Your task to perform on an android device: open app "AliExpress" (install if not already installed) Image 0: 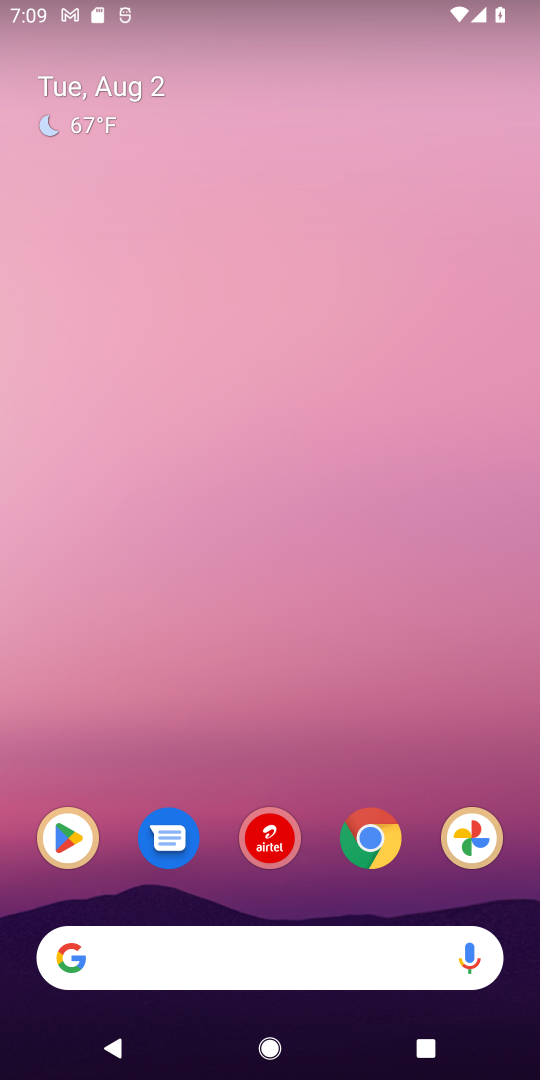
Step 0: click (58, 839)
Your task to perform on an android device: open app "AliExpress" (install if not already installed) Image 1: 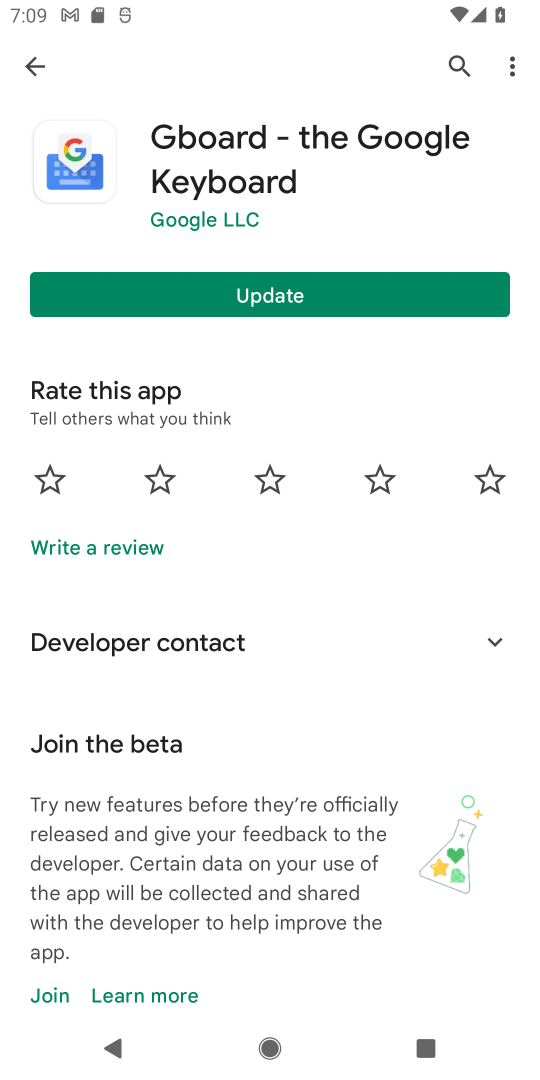
Step 1: press home button
Your task to perform on an android device: open app "AliExpress" (install if not already installed) Image 2: 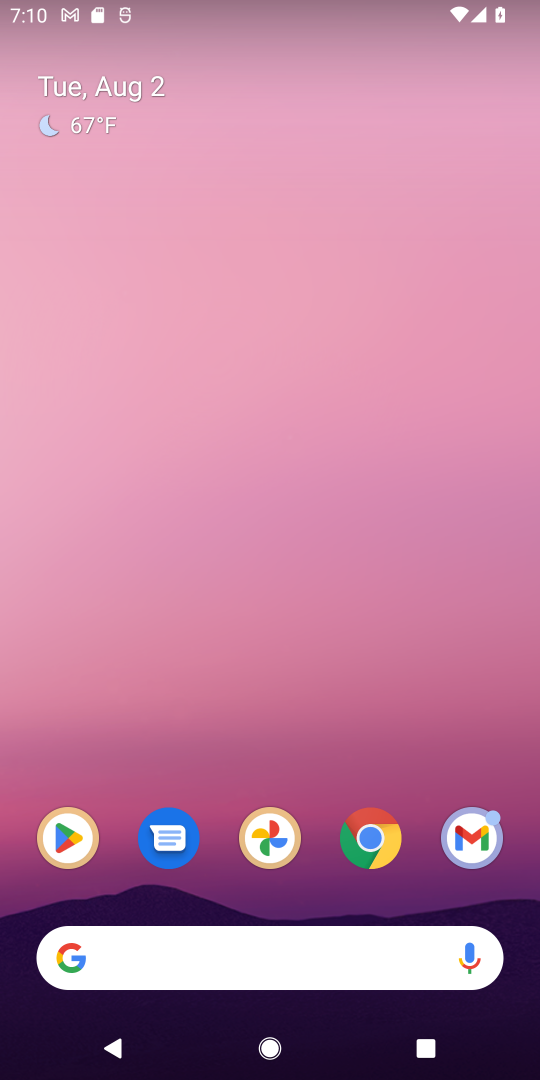
Step 2: click (72, 834)
Your task to perform on an android device: open app "AliExpress" (install if not already installed) Image 3: 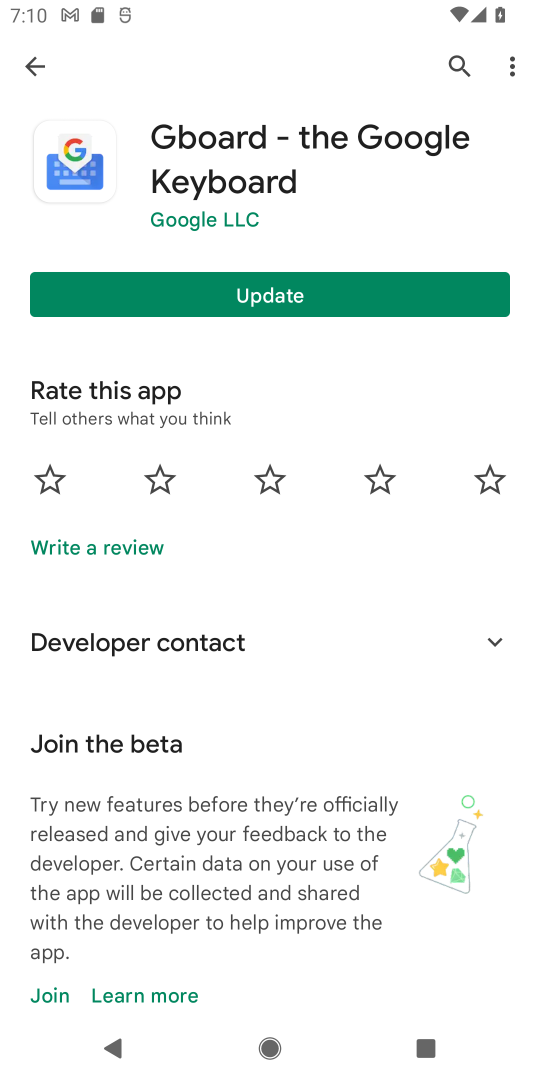
Step 3: click (455, 61)
Your task to perform on an android device: open app "AliExpress" (install if not already installed) Image 4: 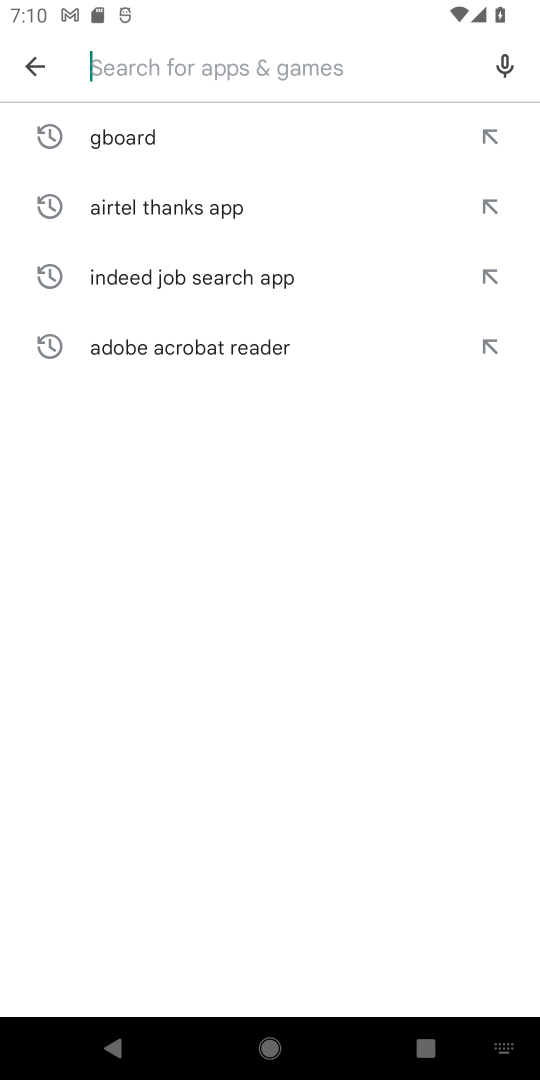
Step 4: type "aliexpress"
Your task to perform on an android device: open app "AliExpress" (install if not already installed) Image 5: 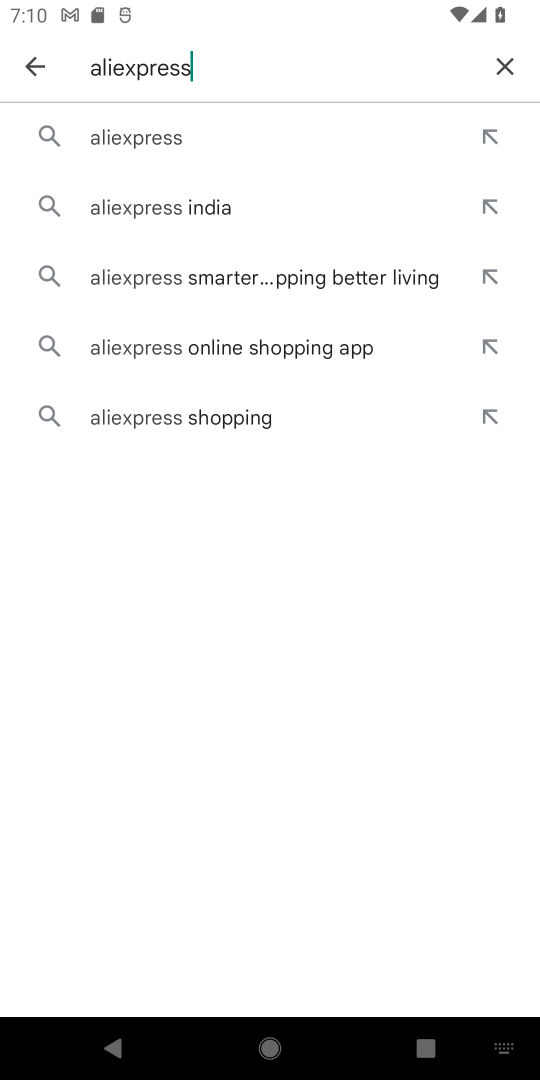
Step 5: click (230, 139)
Your task to perform on an android device: open app "AliExpress" (install if not already installed) Image 6: 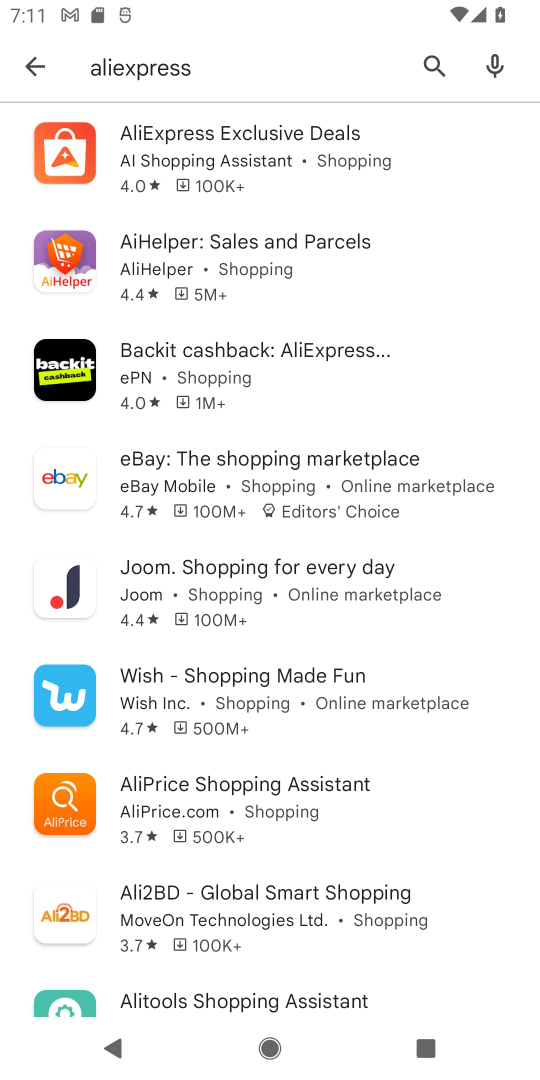
Step 6: click (252, 140)
Your task to perform on an android device: open app "AliExpress" (install if not already installed) Image 7: 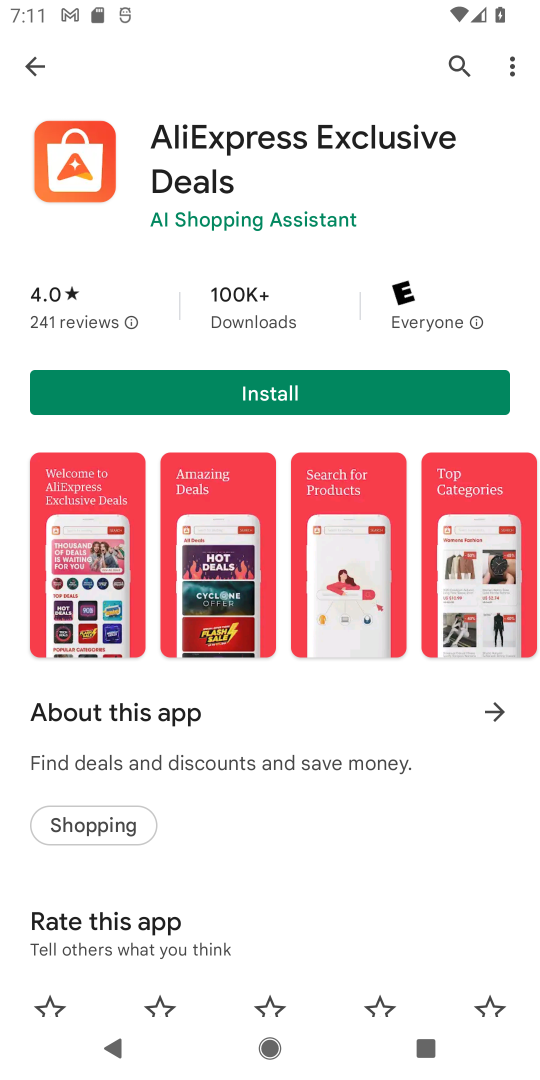
Step 7: task complete